Your task to perform on an android device: turn on priority inbox in the gmail app Image 0: 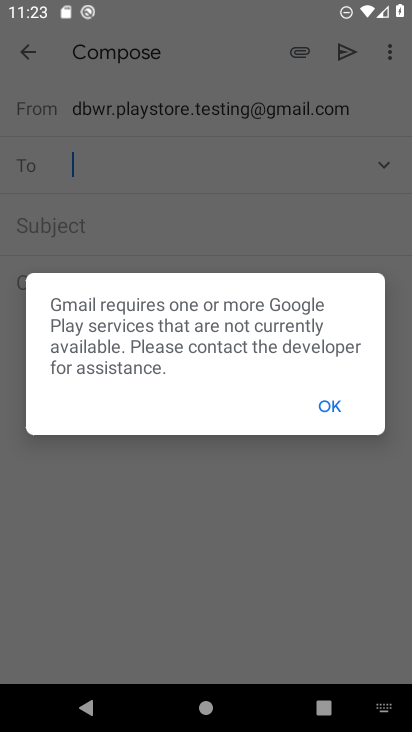
Step 0: press home button
Your task to perform on an android device: turn on priority inbox in the gmail app Image 1: 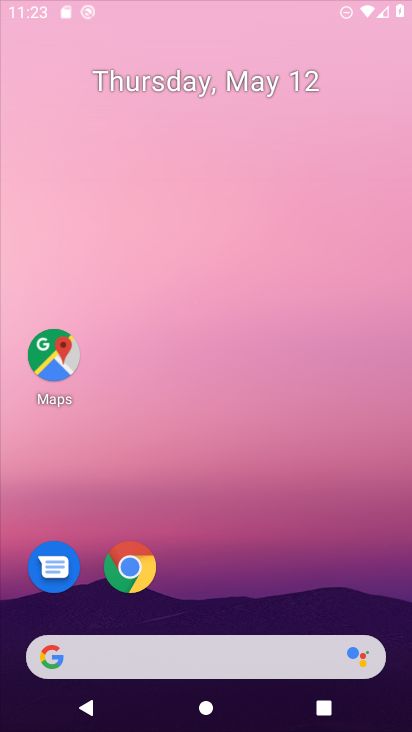
Step 1: drag from (237, 551) to (283, 143)
Your task to perform on an android device: turn on priority inbox in the gmail app Image 2: 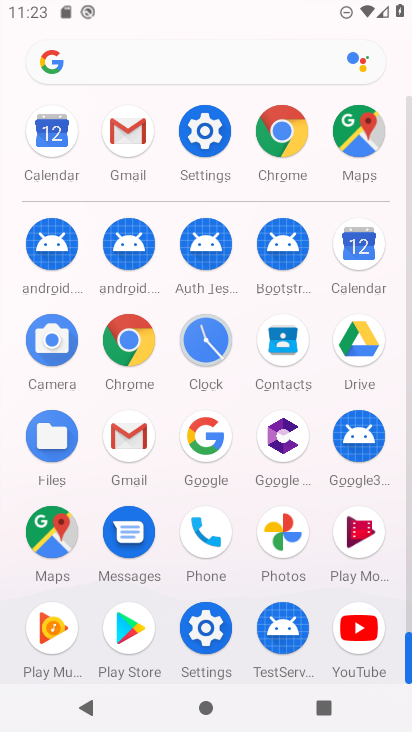
Step 2: click (110, 459)
Your task to perform on an android device: turn on priority inbox in the gmail app Image 3: 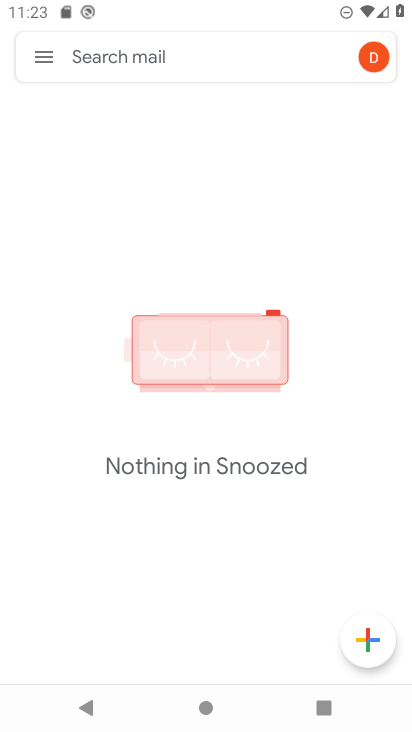
Step 3: click (42, 68)
Your task to perform on an android device: turn on priority inbox in the gmail app Image 4: 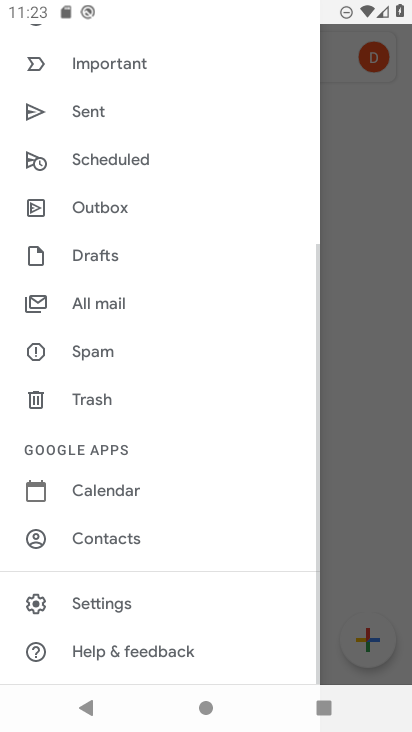
Step 4: drag from (107, 449) to (166, 268)
Your task to perform on an android device: turn on priority inbox in the gmail app Image 5: 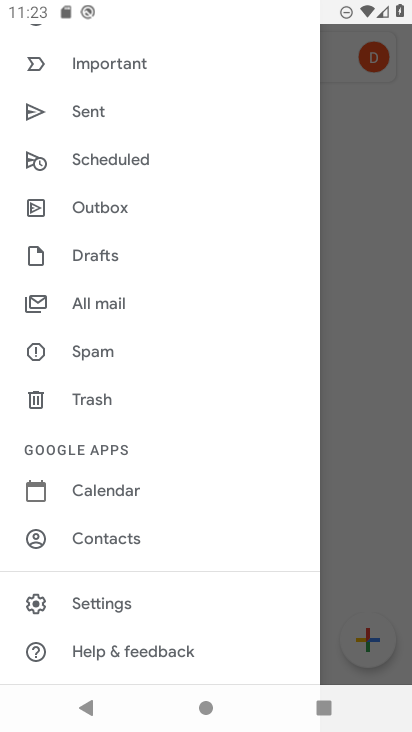
Step 5: click (142, 599)
Your task to perform on an android device: turn on priority inbox in the gmail app Image 6: 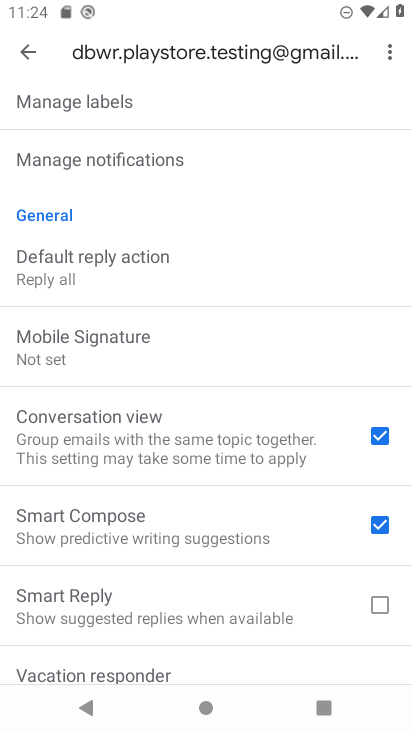
Step 6: drag from (187, 490) to (290, 141)
Your task to perform on an android device: turn on priority inbox in the gmail app Image 7: 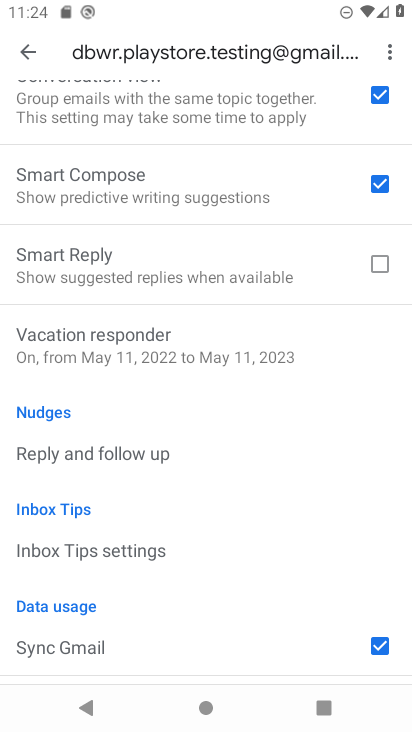
Step 7: drag from (144, 280) to (116, 690)
Your task to perform on an android device: turn on priority inbox in the gmail app Image 8: 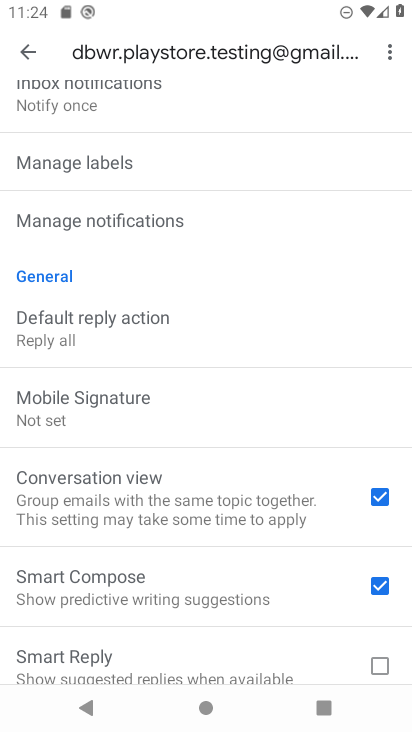
Step 8: drag from (182, 271) to (182, 653)
Your task to perform on an android device: turn on priority inbox in the gmail app Image 9: 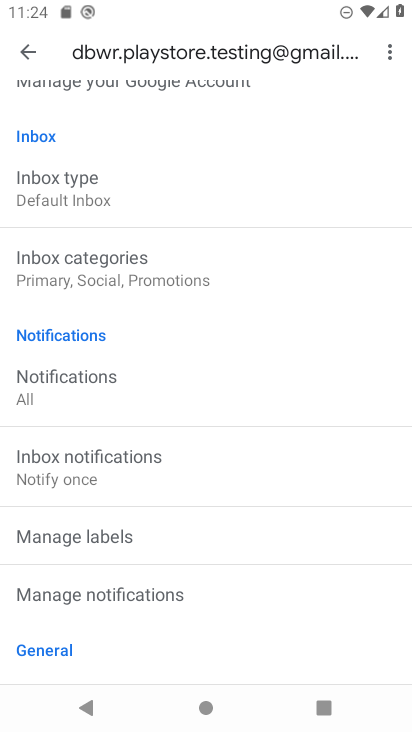
Step 9: click (116, 268)
Your task to perform on an android device: turn on priority inbox in the gmail app Image 10: 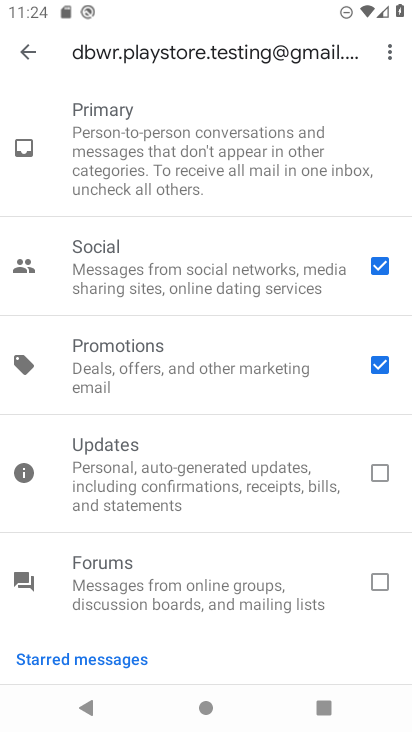
Step 10: task complete